Your task to perform on an android device: change the clock display to digital Image 0: 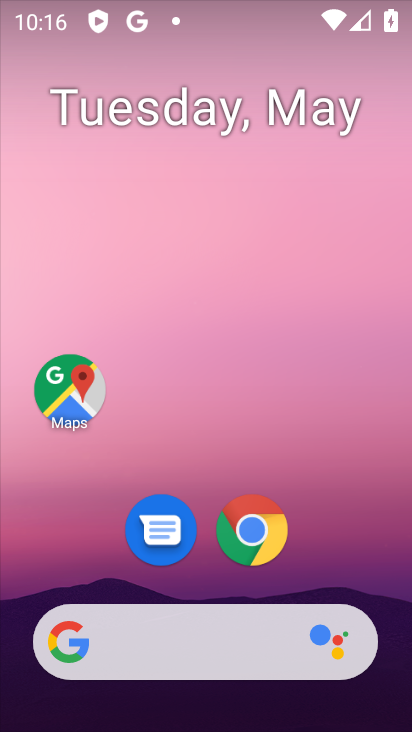
Step 0: drag from (324, 553) to (332, 163)
Your task to perform on an android device: change the clock display to digital Image 1: 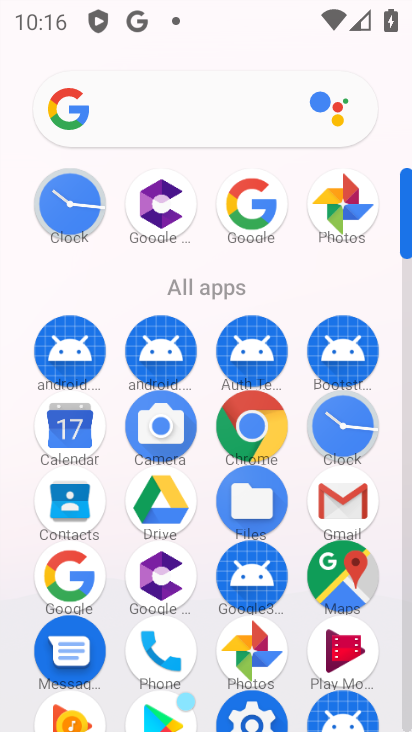
Step 1: click (330, 422)
Your task to perform on an android device: change the clock display to digital Image 2: 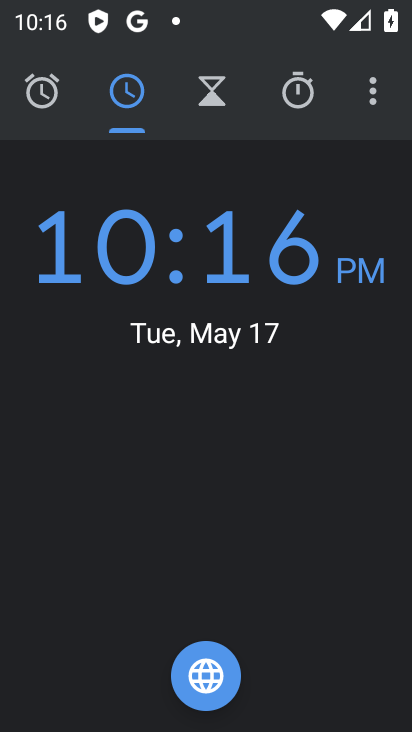
Step 2: click (379, 96)
Your task to perform on an android device: change the clock display to digital Image 3: 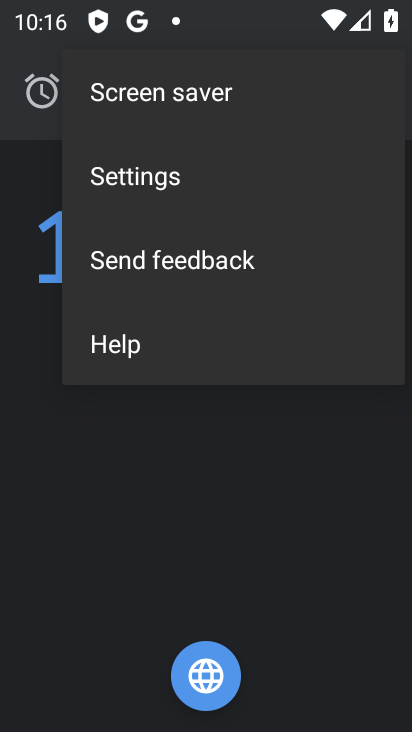
Step 3: click (210, 200)
Your task to perform on an android device: change the clock display to digital Image 4: 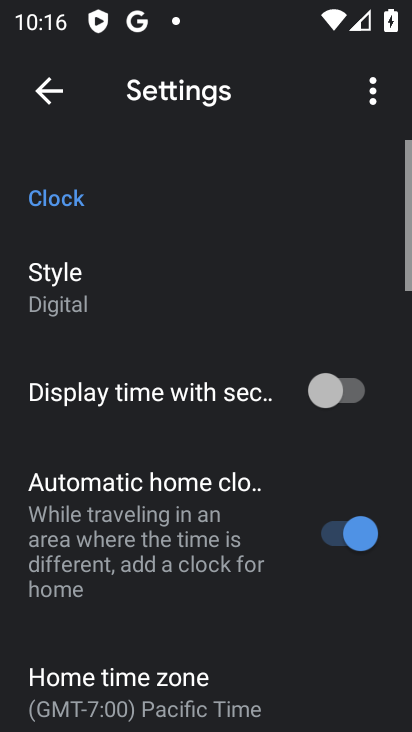
Step 4: task complete